Your task to perform on an android device: Check the weather Image 0: 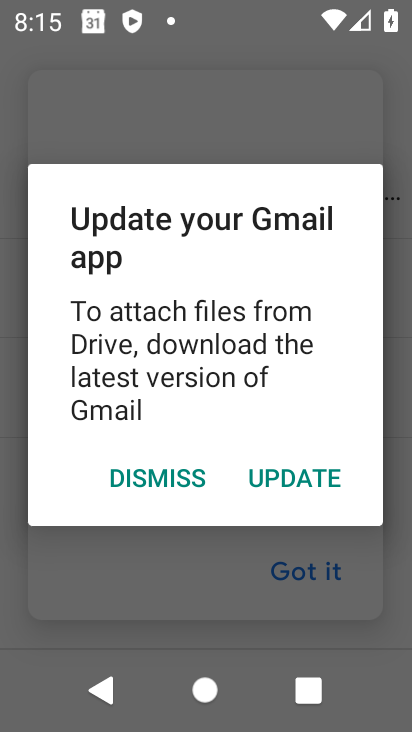
Step 0: press home button
Your task to perform on an android device: Check the weather Image 1: 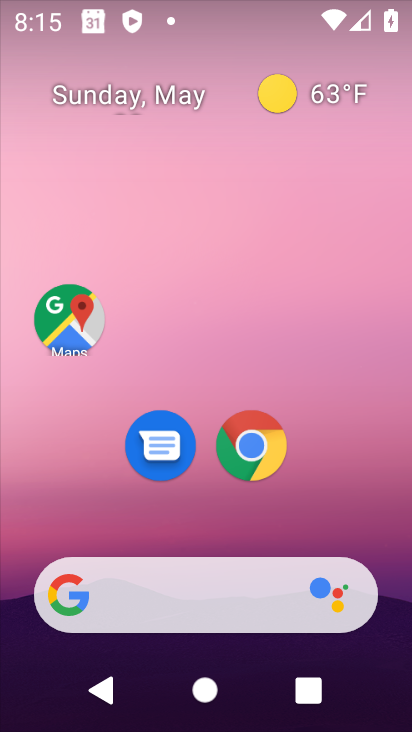
Step 1: click (192, 582)
Your task to perform on an android device: Check the weather Image 2: 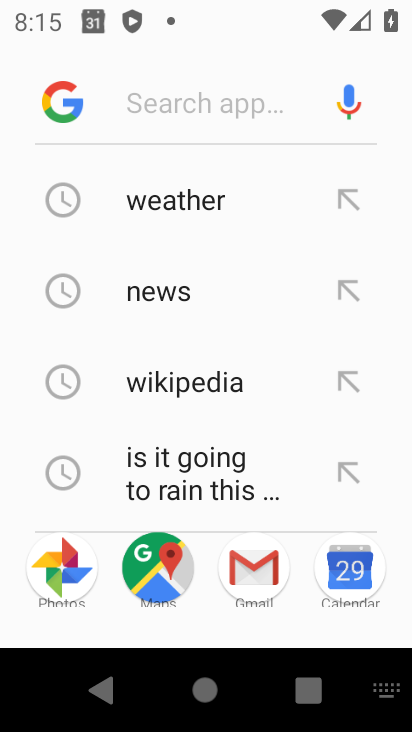
Step 2: type "weather"
Your task to perform on an android device: Check the weather Image 3: 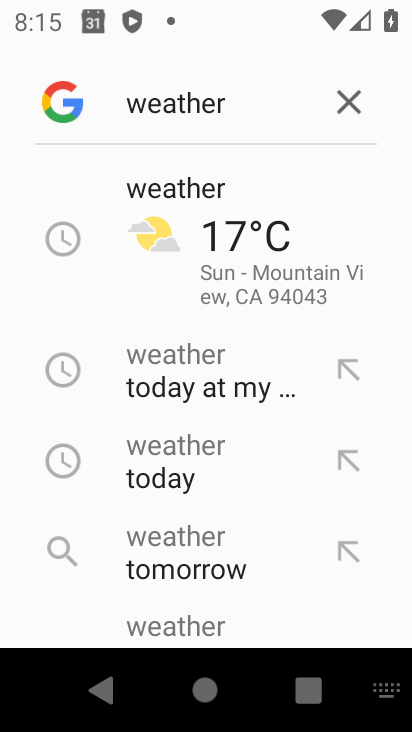
Step 3: click (243, 236)
Your task to perform on an android device: Check the weather Image 4: 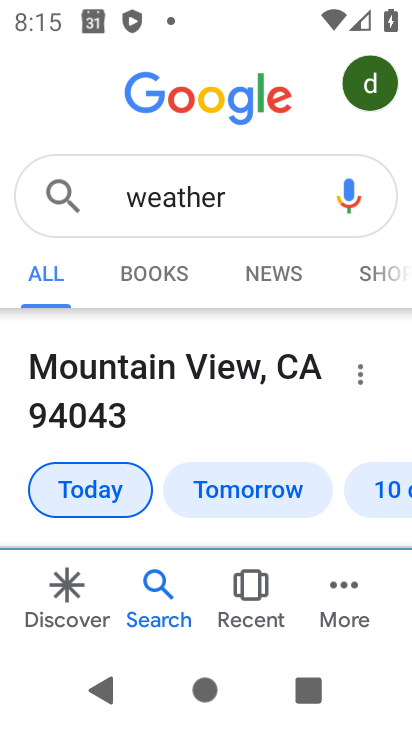
Step 4: task complete